Your task to perform on an android device: Go to sound settings Image 0: 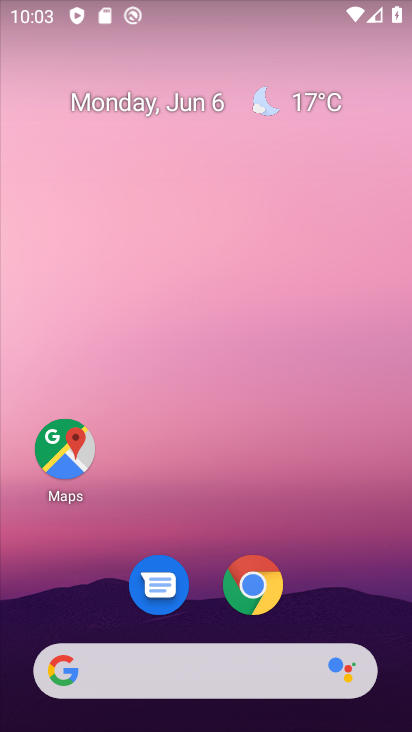
Step 0: drag from (213, 483) to (257, 1)
Your task to perform on an android device: Go to sound settings Image 1: 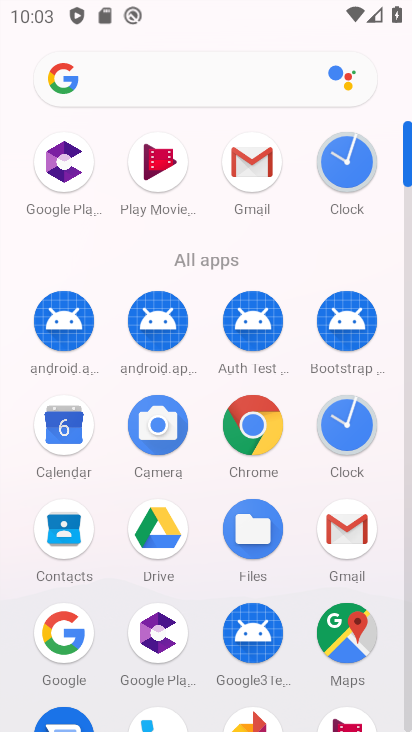
Step 1: drag from (209, 485) to (228, 110)
Your task to perform on an android device: Go to sound settings Image 2: 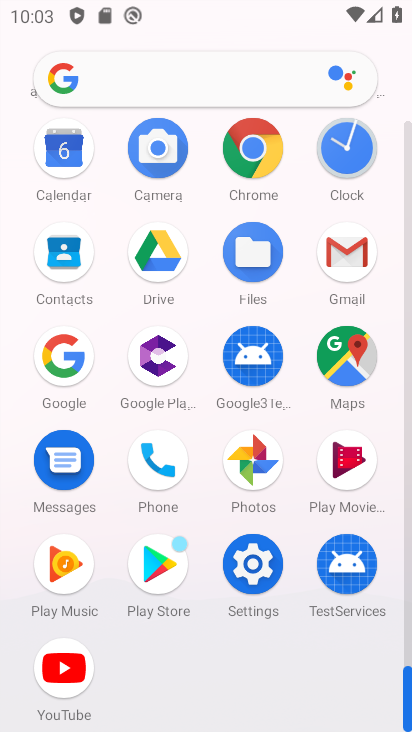
Step 2: click (258, 552)
Your task to perform on an android device: Go to sound settings Image 3: 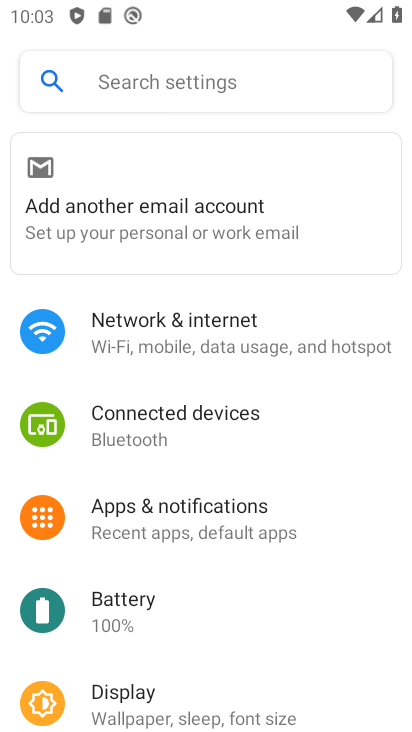
Step 3: drag from (256, 583) to (293, 203)
Your task to perform on an android device: Go to sound settings Image 4: 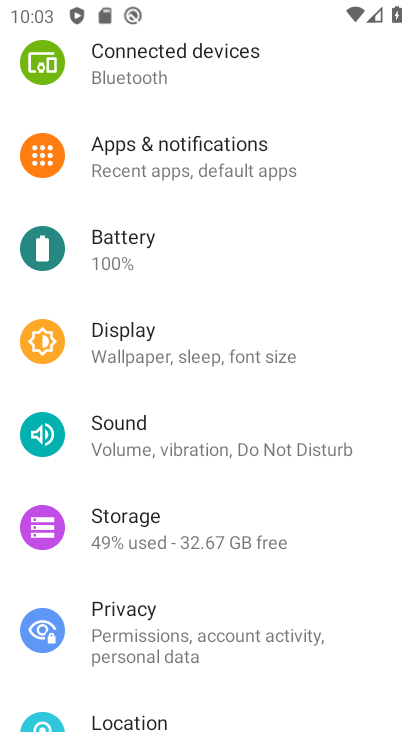
Step 4: click (176, 446)
Your task to perform on an android device: Go to sound settings Image 5: 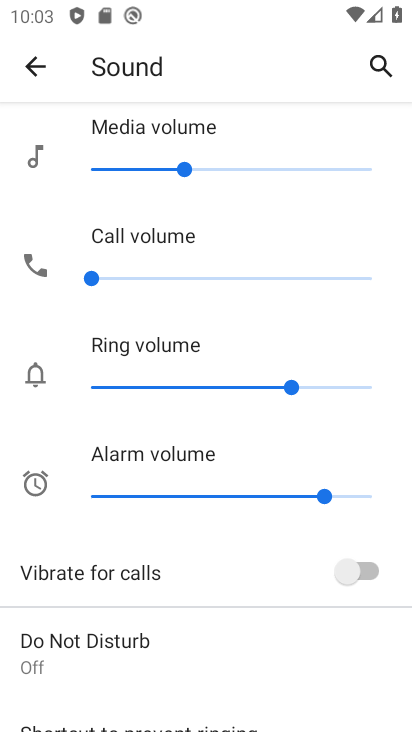
Step 5: task complete